Your task to perform on an android device: toggle notification dots Image 0: 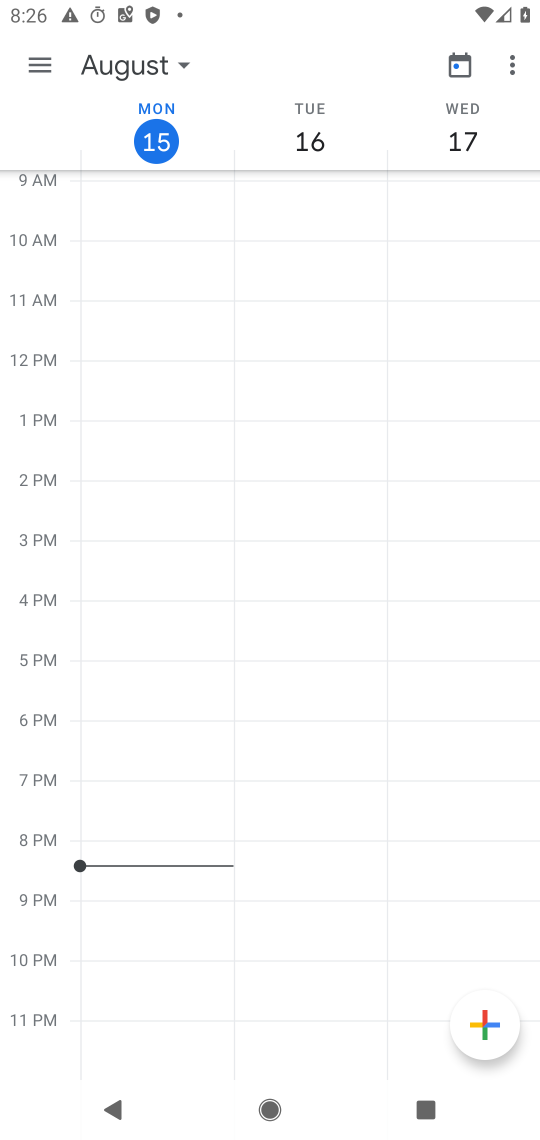
Step 0: press home button
Your task to perform on an android device: toggle notification dots Image 1: 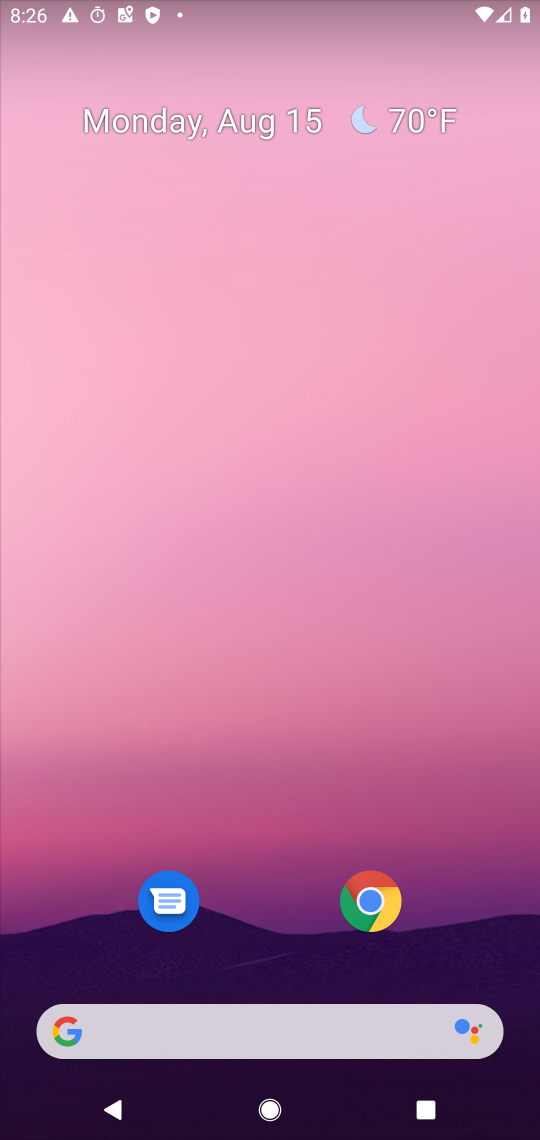
Step 1: drag from (230, 874) to (183, 30)
Your task to perform on an android device: toggle notification dots Image 2: 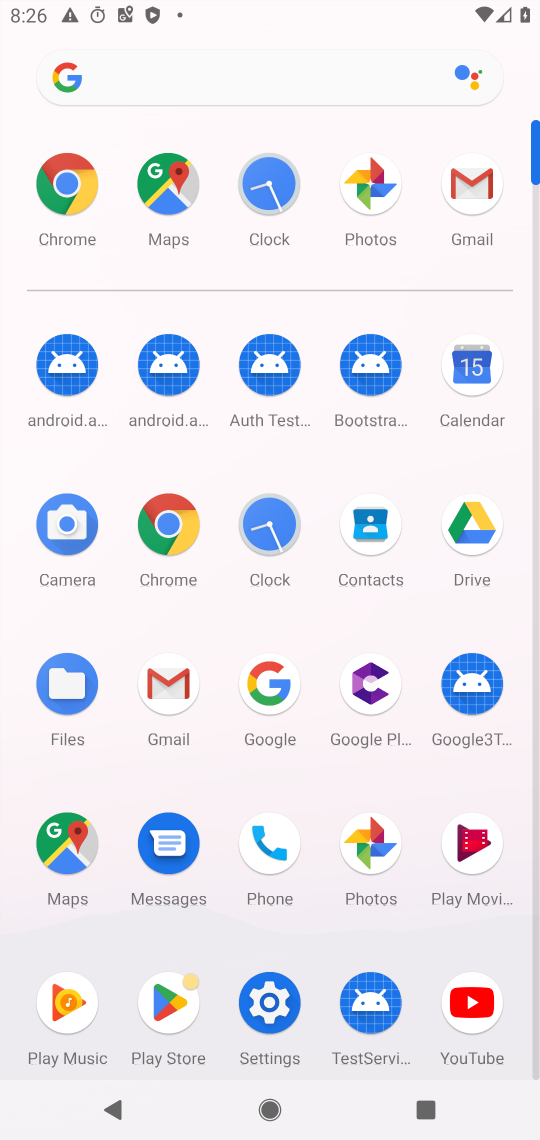
Step 2: click (267, 1008)
Your task to perform on an android device: toggle notification dots Image 3: 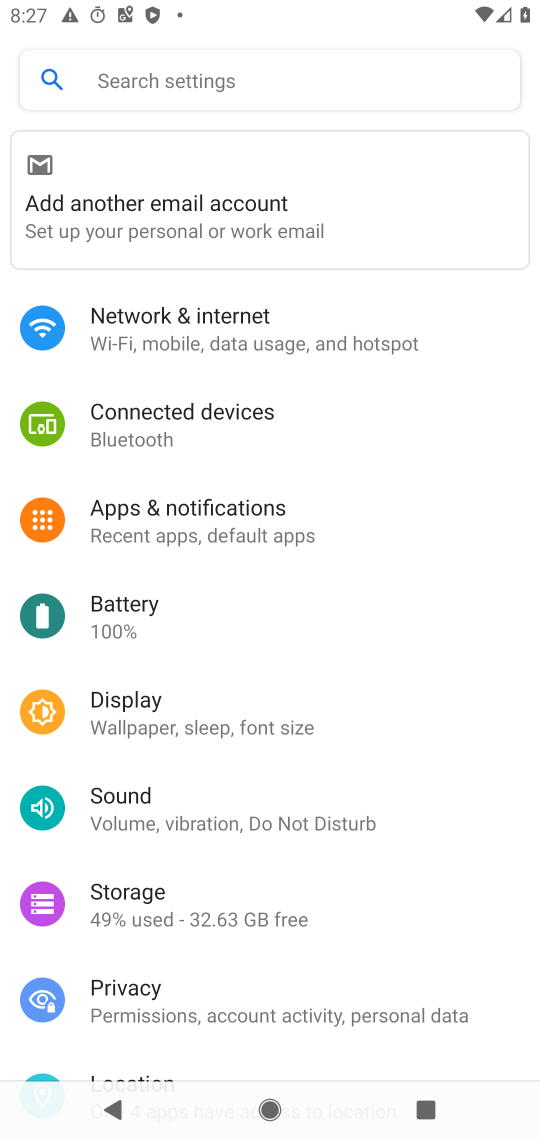
Step 3: click (235, 526)
Your task to perform on an android device: toggle notification dots Image 4: 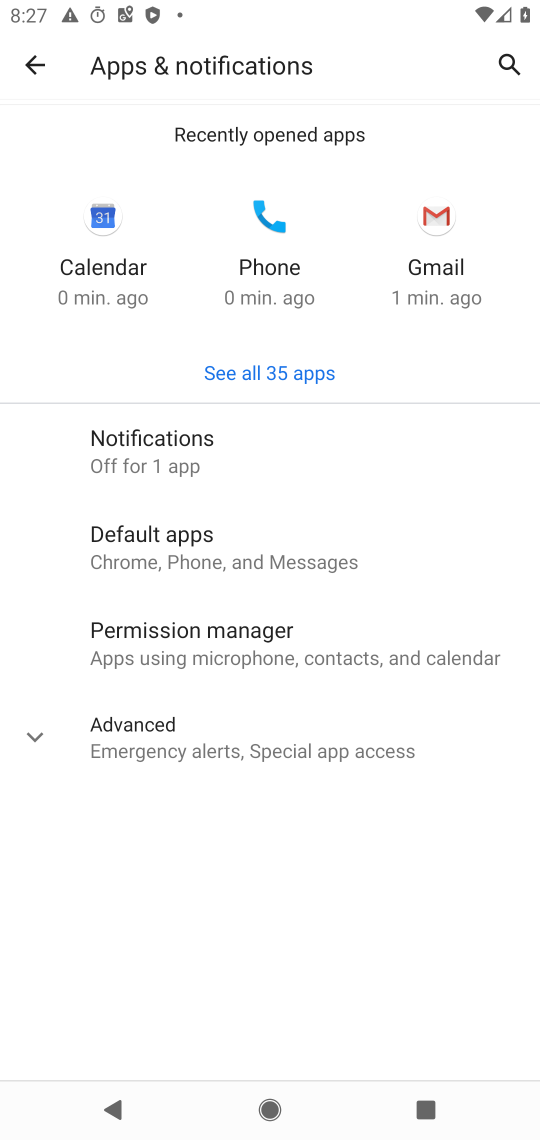
Step 4: click (190, 457)
Your task to perform on an android device: toggle notification dots Image 5: 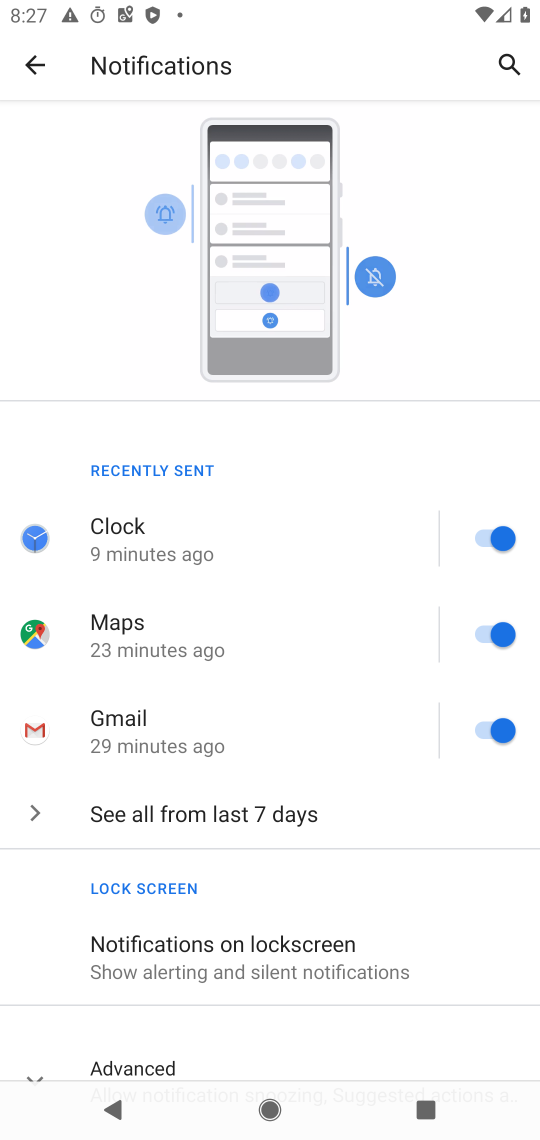
Step 5: drag from (262, 978) to (283, 674)
Your task to perform on an android device: toggle notification dots Image 6: 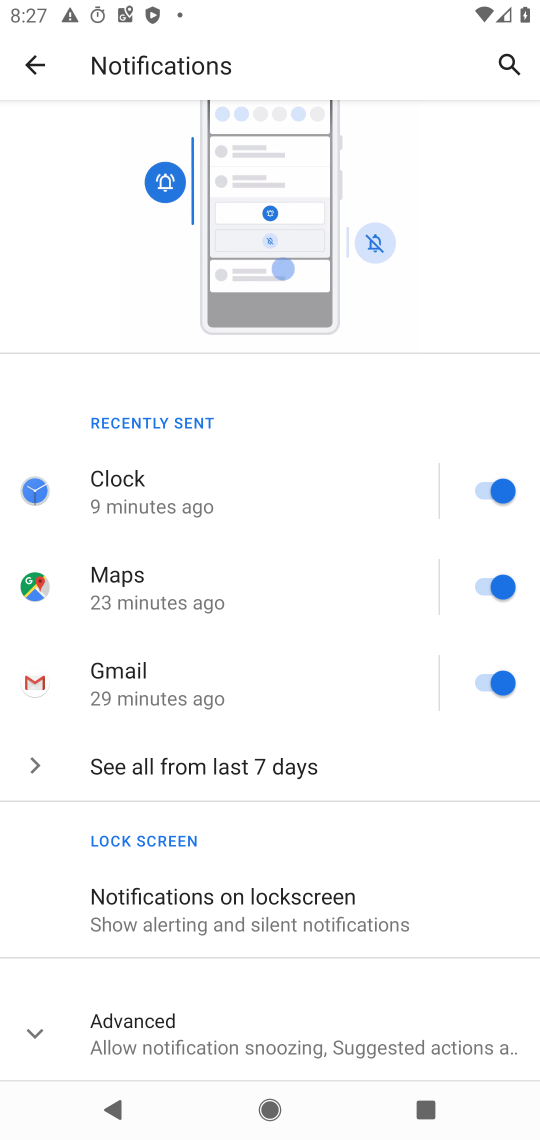
Step 6: click (186, 1037)
Your task to perform on an android device: toggle notification dots Image 7: 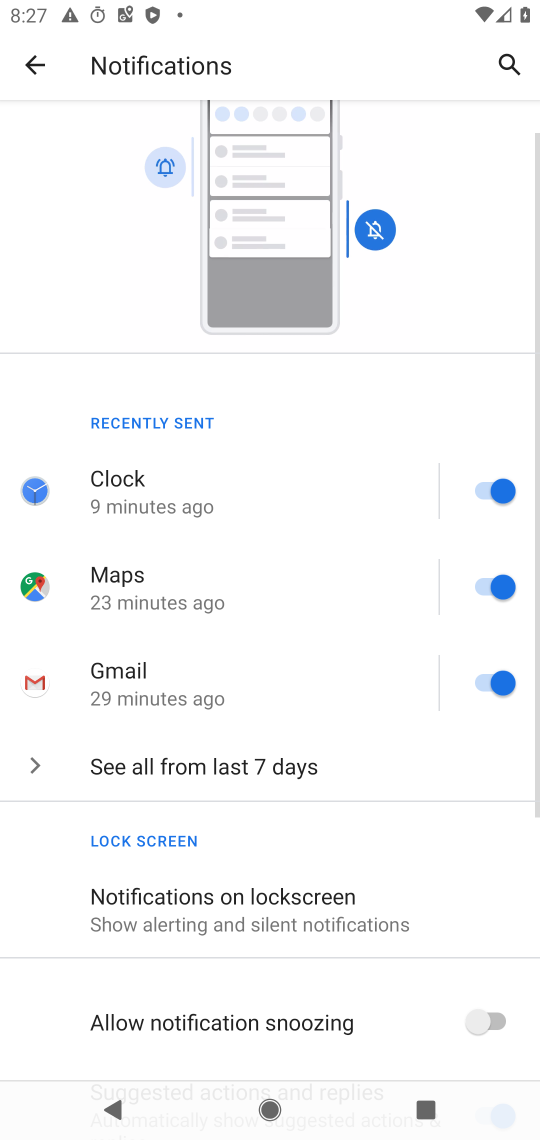
Step 7: drag from (220, 974) to (198, 571)
Your task to perform on an android device: toggle notification dots Image 8: 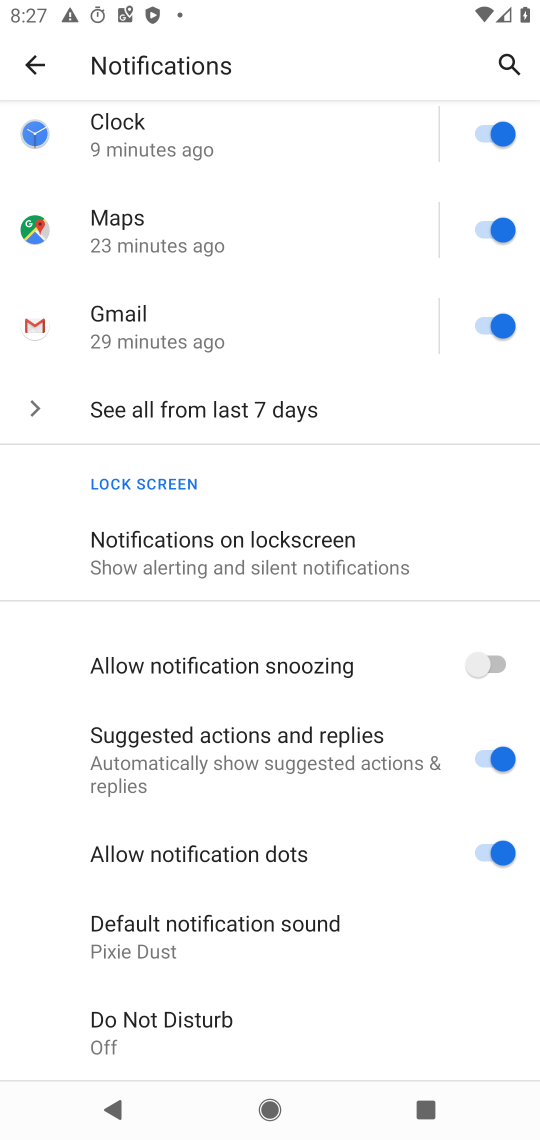
Step 8: click (457, 844)
Your task to perform on an android device: toggle notification dots Image 9: 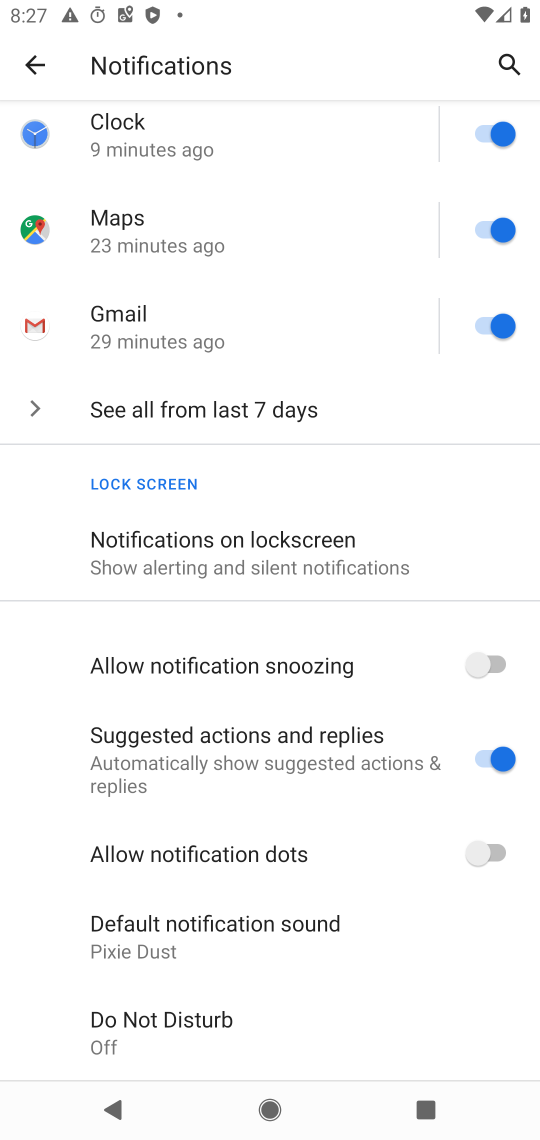
Step 9: task complete